Your task to perform on an android device: Turn on the flashlight Image 0: 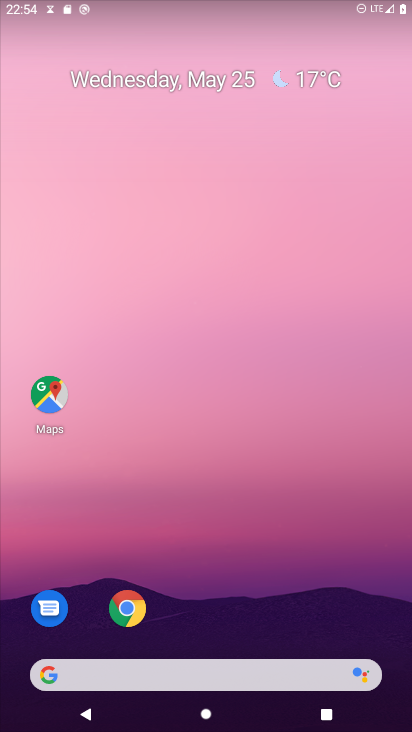
Step 0: drag from (297, 15) to (282, 539)
Your task to perform on an android device: Turn on the flashlight Image 1: 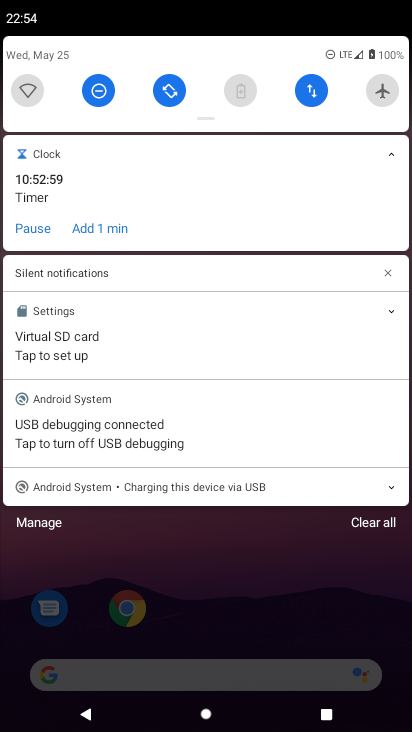
Step 1: task complete